Your task to perform on an android device: check the backup settings in the google photos Image 0: 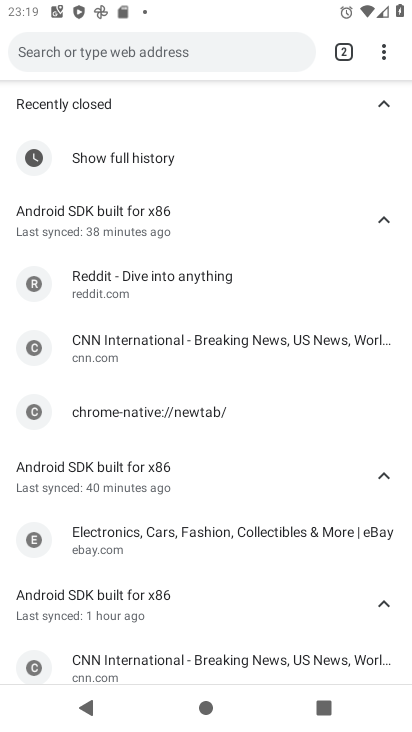
Step 0: press home button
Your task to perform on an android device: check the backup settings in the google photos Image 1: 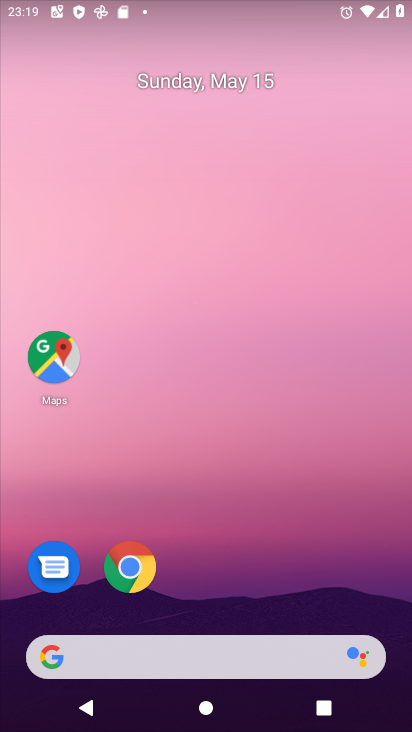
Step 1: drag from (239, 720) to (363, 64)
Your task to perform on an android device: check the backup settings in the google photos Image 2: 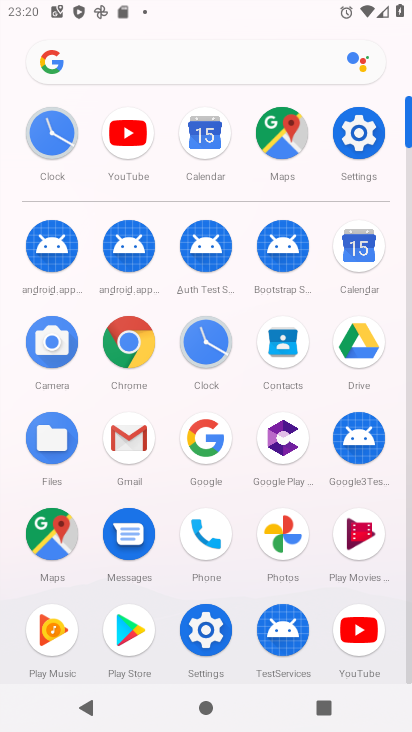
Step 2: click (286, 535)
Your task to perform on an android device: check the backup settings in the google photos Image 3: 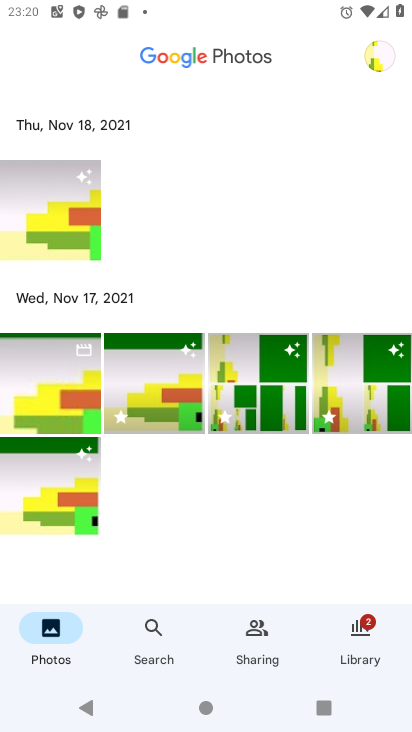
Step 3: click (395, 53)
Your task to perform on an android device: check the backup settings in the google photos Image 4: 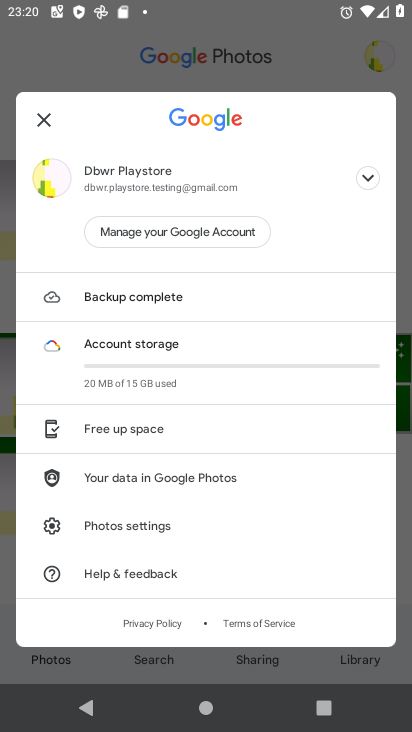
Step 4: click (215, 184)
Your task to perform on an android device: check the backup settings in the google photos Image 5: 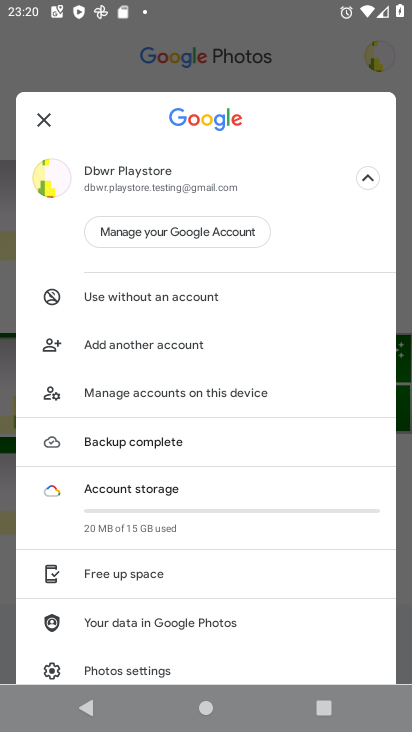
Step 5: click (116, 671)
Your task to perform on an android device: check the backup settings in the google photos Image 6: 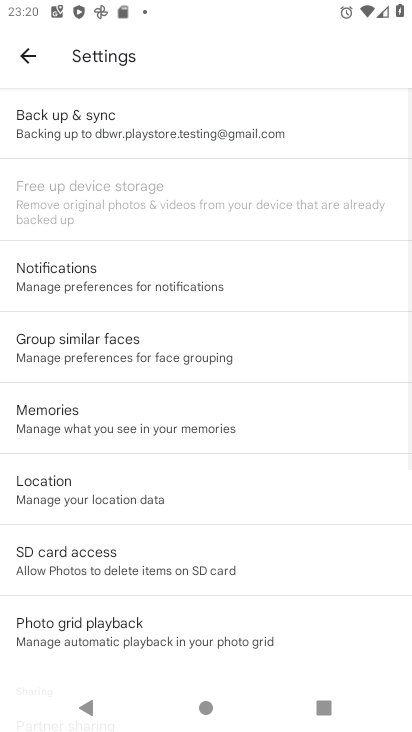
Step 6: click (212, 133)
Your task to perform on an android device: check the backup settings in the google photos Image 7: 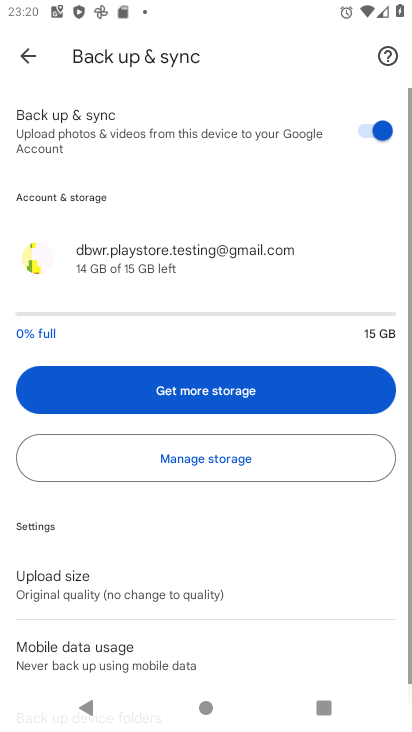
Step 7: task complete